Your task to perform on an android device: What's on my calendar tomorrow? Image 0: 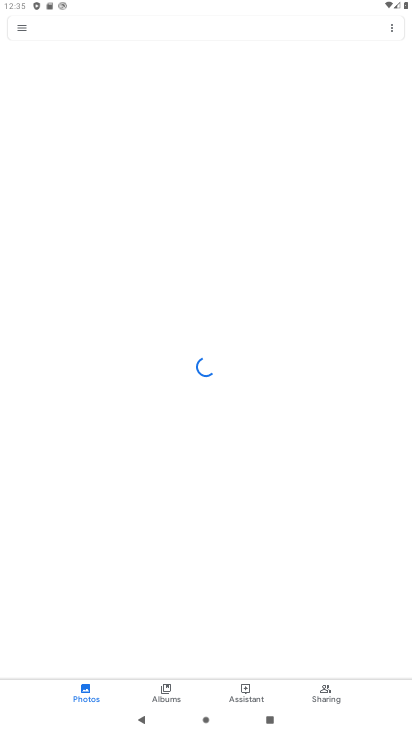
Step 0: press home button
Your task to perform on an android device: What's on my calendar tomorrow? Image 1: 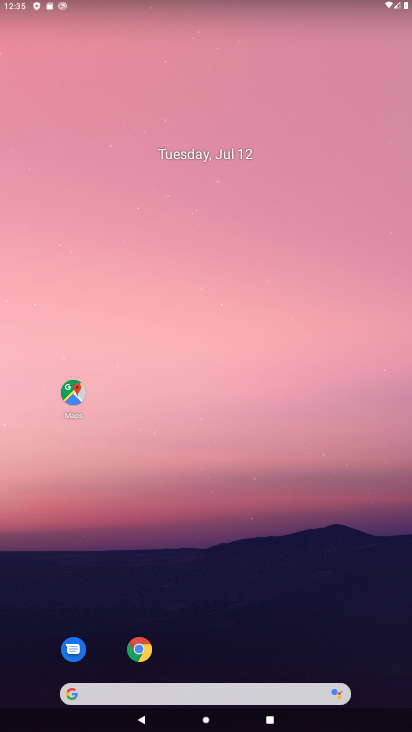
Step 1: drag from (244, 637) to (255, 6)
Your task to perform on an android device: What's on my calendar tomorrow? Image 2: 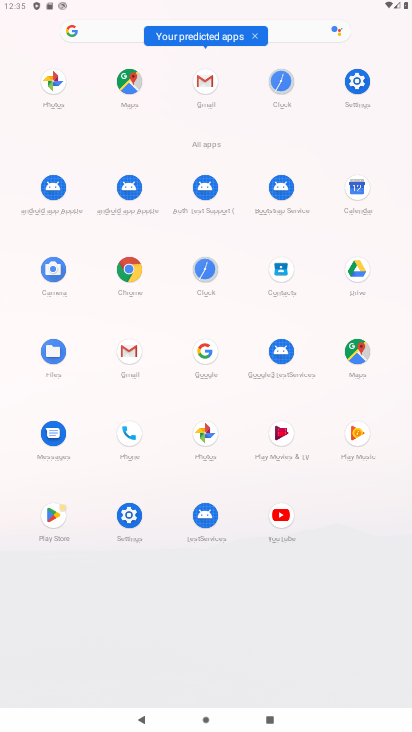
Step 2: click (354, 185)
Your task to perform on an android device: What's on my calendar tomorrow? Image 3: 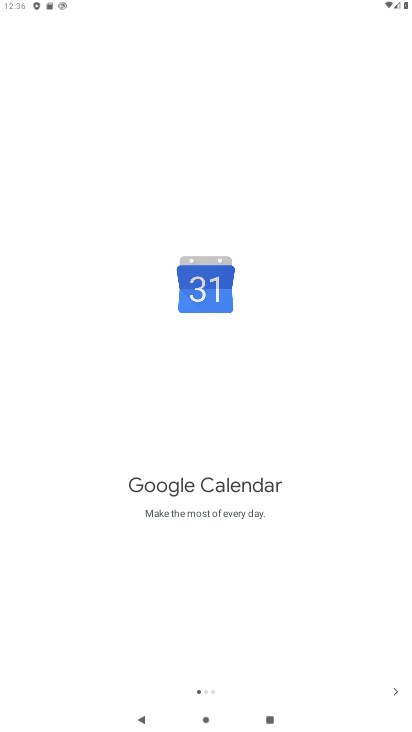
Step 3: click (393, 695)
Your task to perform on an android device: What's on my calendar tomorrow? Image 4: 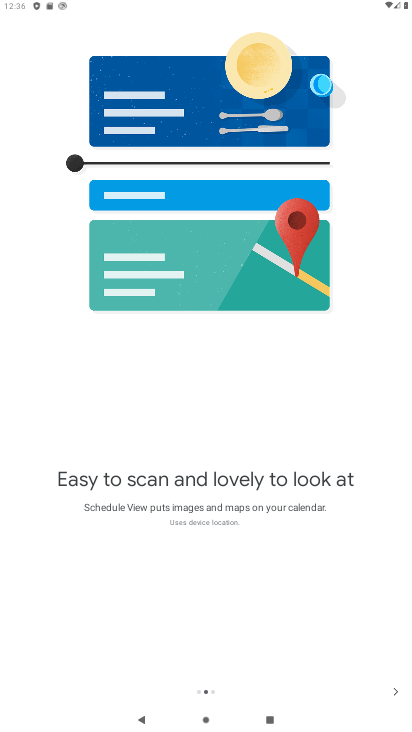
Step 4: click (395, 688)
Your task to perform on an android device: What's on my calendar tomorrow? Image 5: 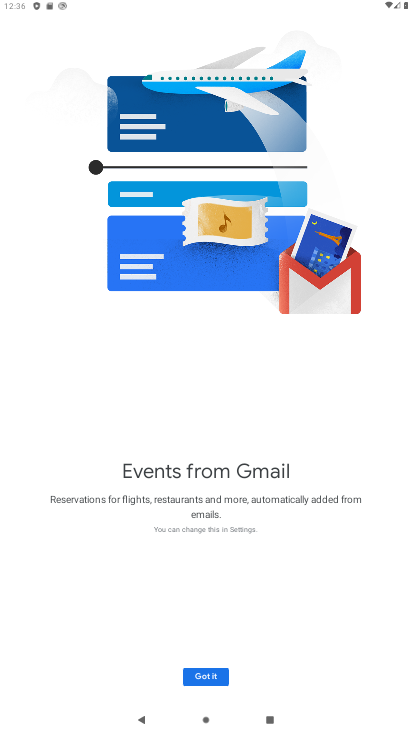
Step 5: click (193, 681)
Your task to perform on an android device: What's on my calendar tomorrow? Image 6: 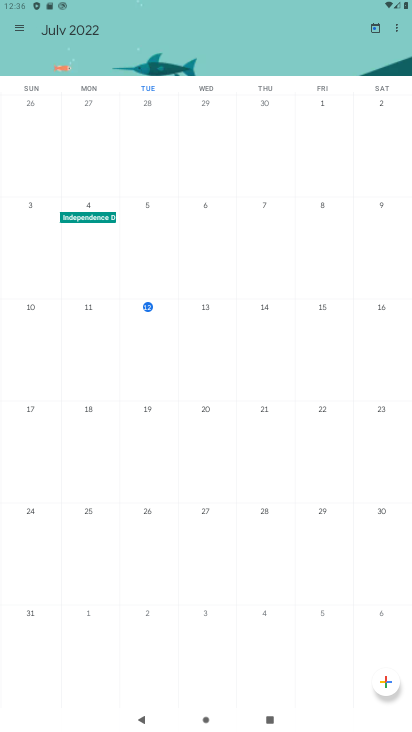
Step 6: click (18, 28)
Your task to perform on an android device: What's on my calendar tomorrow? Image 7: 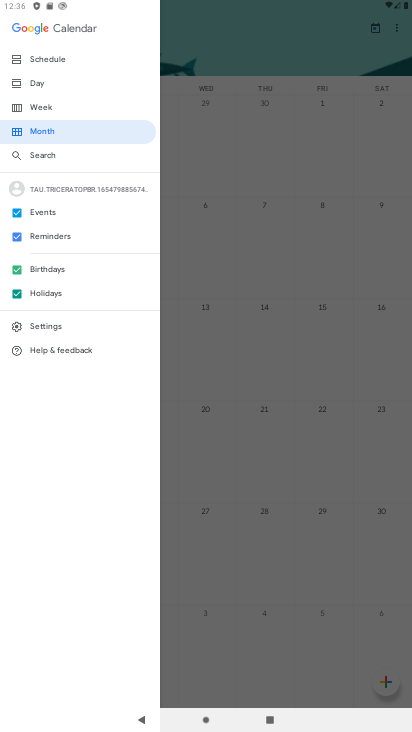
Step 7: click (33, 84)
Your task to perform on an android device: What's on my calendar tomorrow? Image 8: 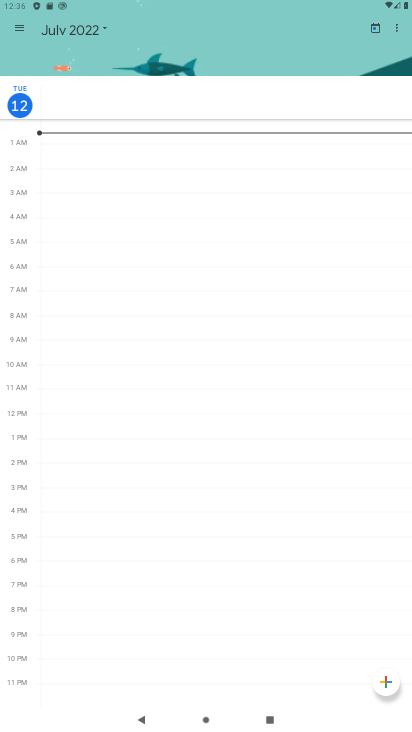
Step 8: task complete